Your task to perform on an android device: Open the web browser Image 0: 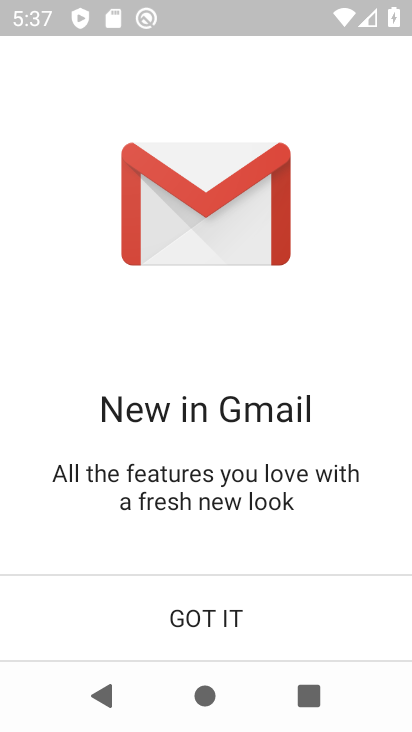
Step 0: press home button
Your task to perform on an android device: Open the web browser Image 1: 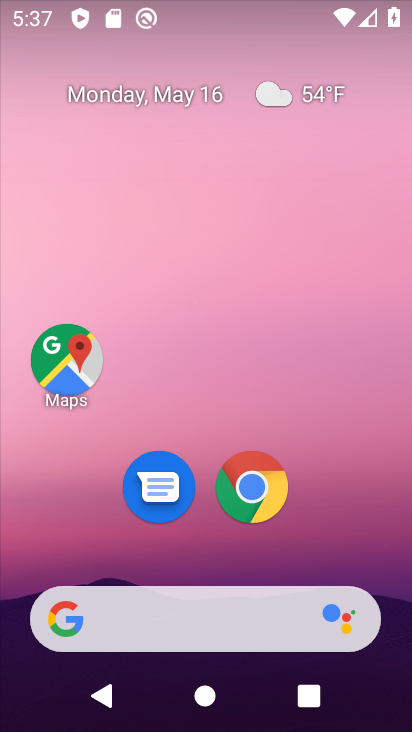
Step 1: click (244, 484)
Your task to perform on an android device: Open the web browser Image 2: 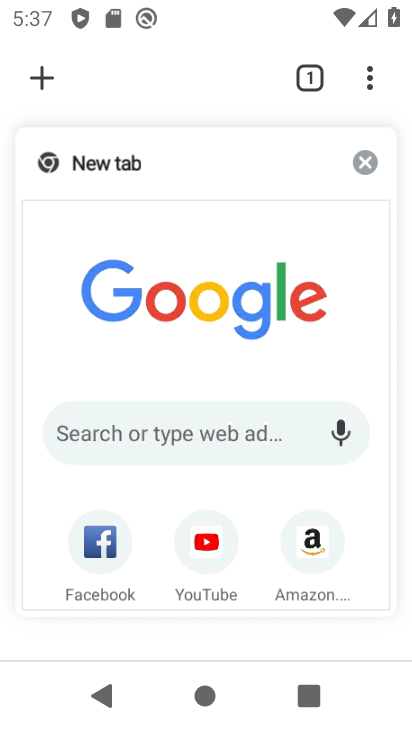
Step 2: task complete